Your task to perform on an android device: What is the recent news? Image 0: 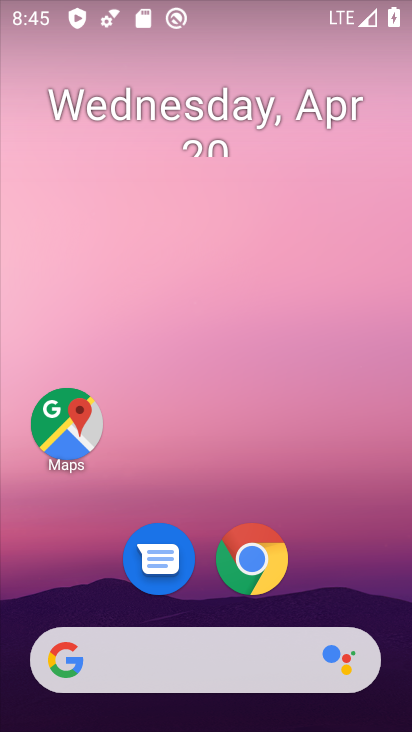
Step 0: click (262, 573)
Your task to perform on an android device: What is the recent news? Image 1: 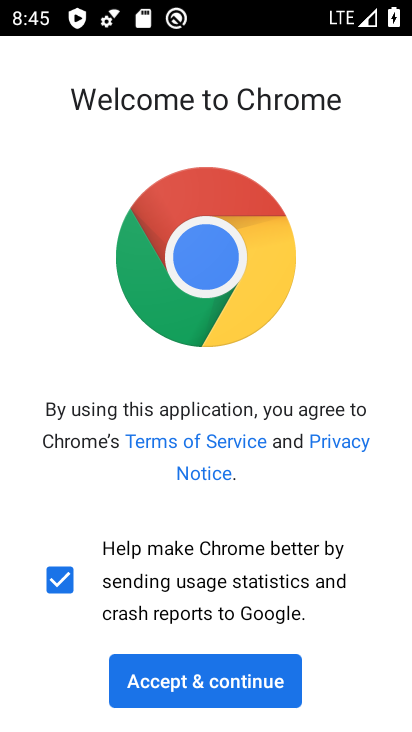
Step 1: click (186, 684)
Your task to perform on an android device: What is the recent news? Image 2: 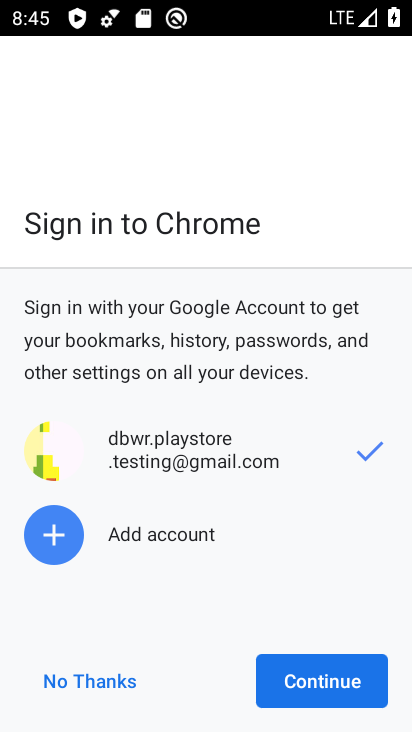
Step 2: click (309, 679)
Your task to perform on an android device: What is the recent news? Image 3: 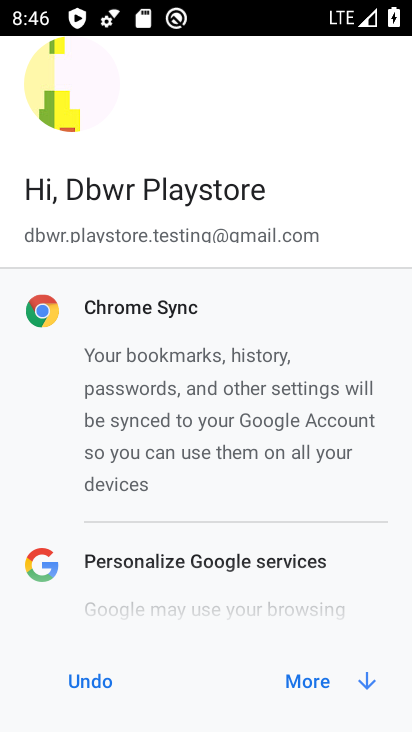
Step 3: click (309, 679)
Your task to perform on an android device: What is the recent news? Image 4: 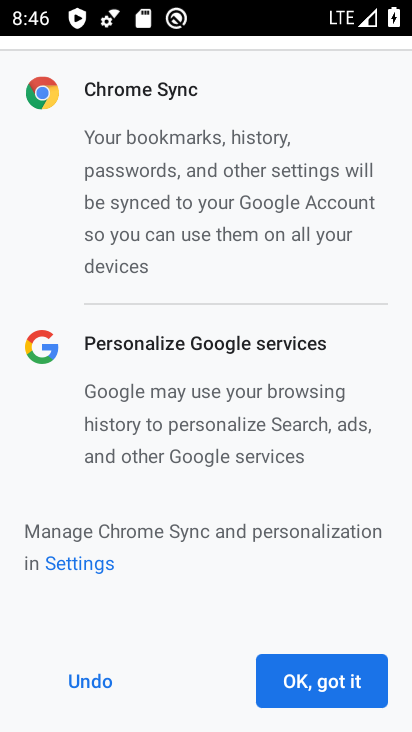
Step 4: click (309, 679)
Your task to perform on an android device: What is the recent news? Image 5: 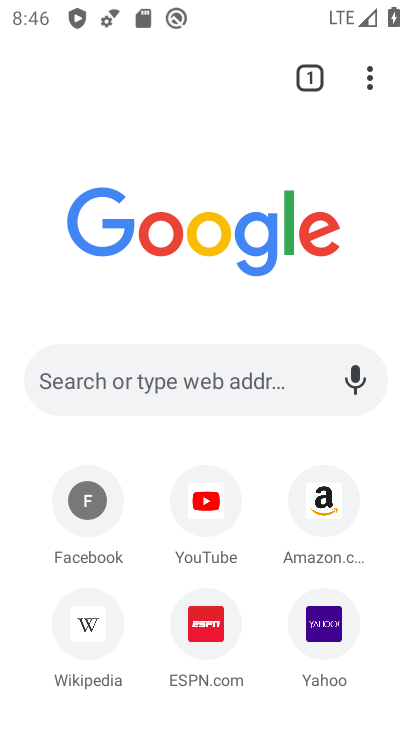
Step 5: click (135, 389)
Your task to perform on an android device: What is the recent news? Image 6: 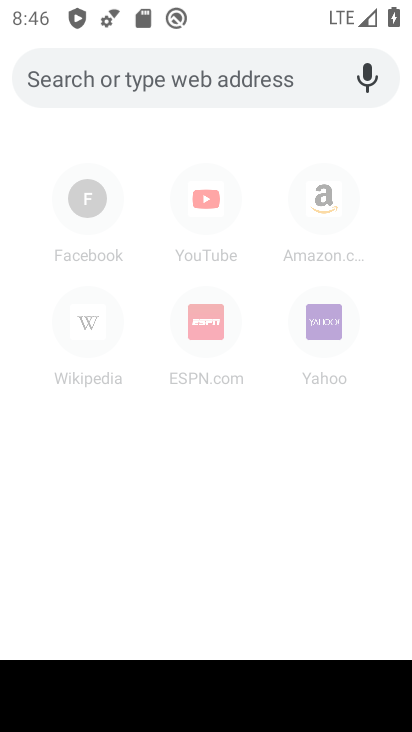
Step 6: type "what b is the recent news"
Your task to perform on an android device: What is the recent news? Image 7: 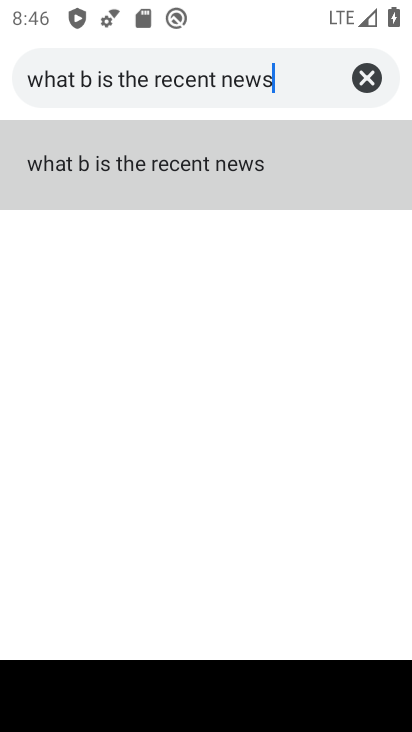
Step 7: click (365, 76)
Your task to perform on an android device: What is the recent news? Image 8: 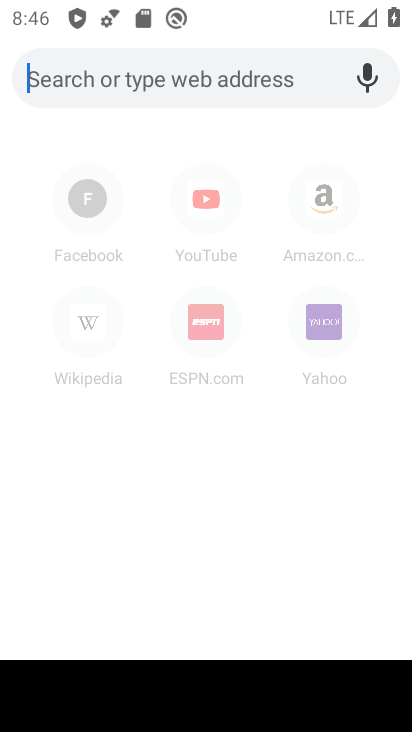
Step 8: type "what is the recent news"
Your task to perform on an android device: What is the recent news? Image 9: 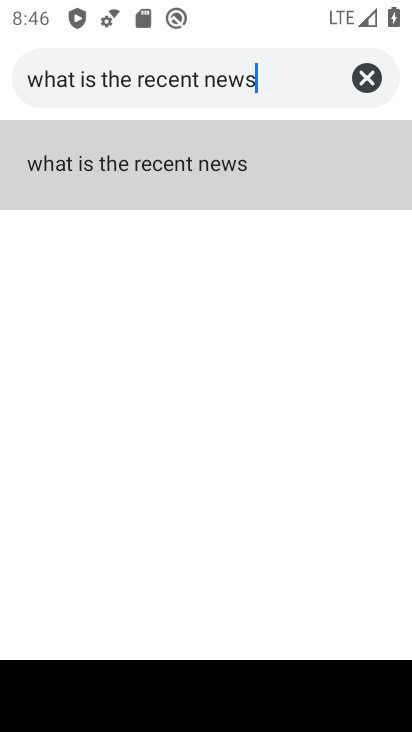
Step 9: click (178, 165)
Your task to perform on an android device: What is the recent news? Image 10: 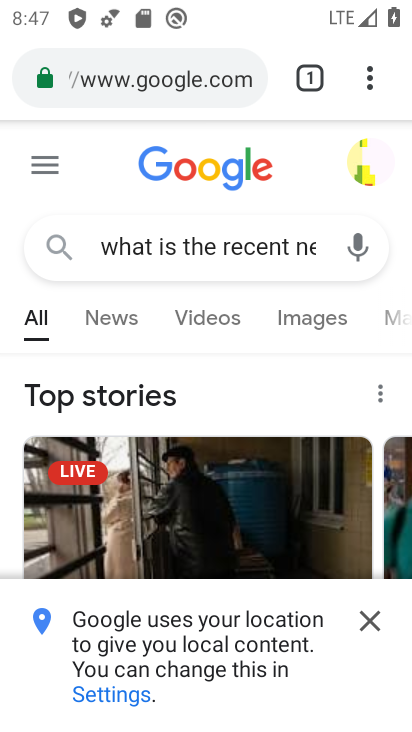
Step 10: task complete